Your task to perform on an android device: Show me recent news Image 0: 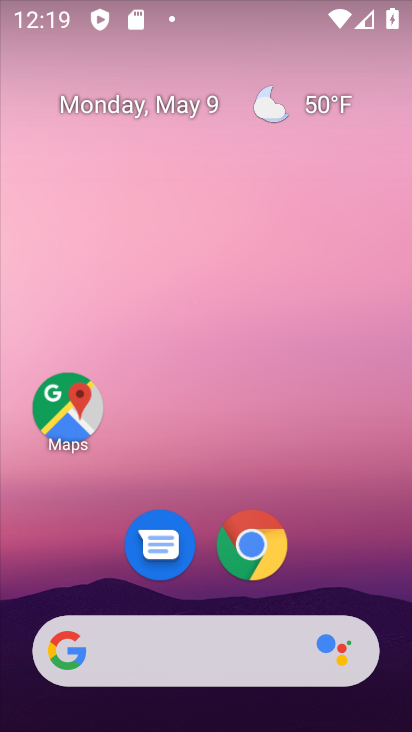
Step 0: drag from (185, 574) to (183, 124)
Your task to perform on an android device: Show me recent news Image 1: 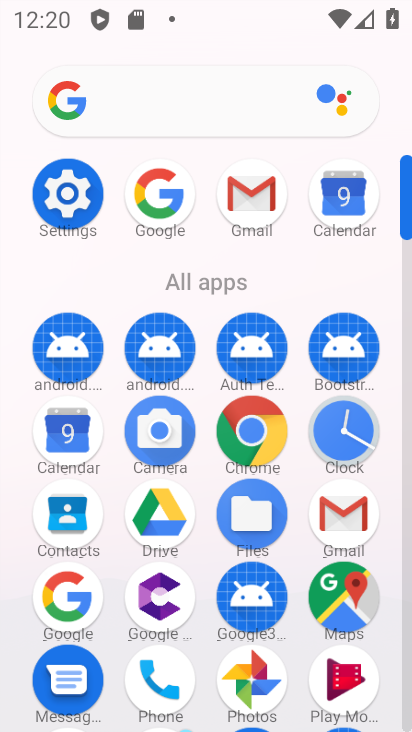
Step 1: click (170, 172)
Your task to perform on an android device: Show me recent news Image 2: 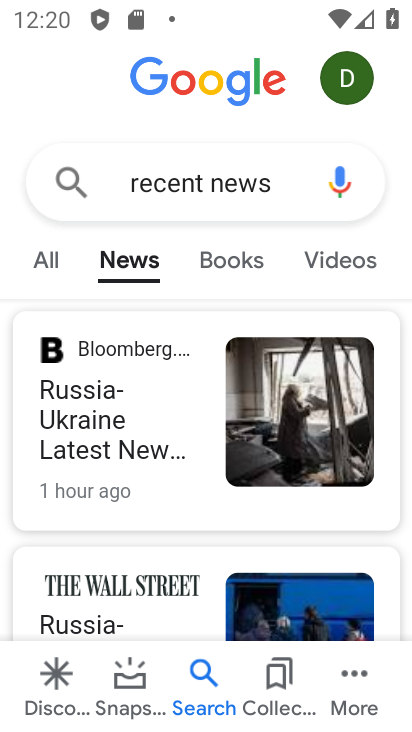
Step 2: task complete